Your task to perform on an android device: Find coffee shops on Maps Image 0: 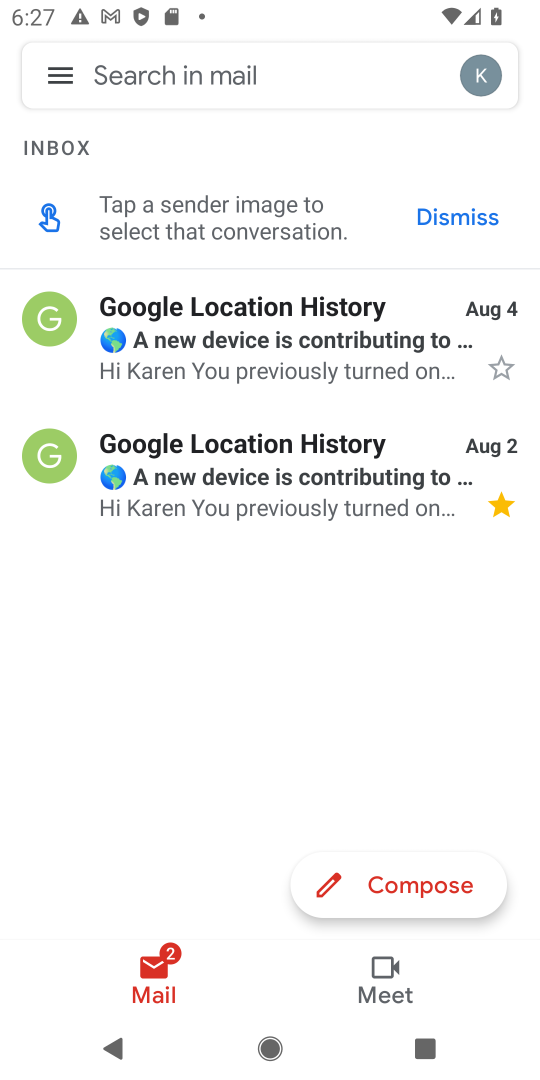
Step 0: press back button
Your task to perform on an android device: Find coffee shops on Maps Image 1: 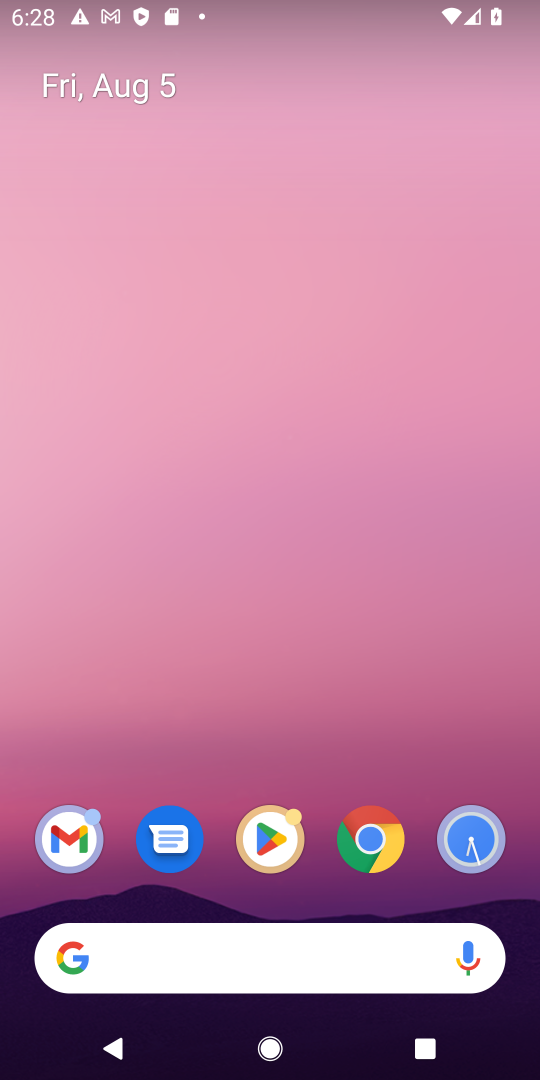
Step 1: drag from (378, 762) to (329, 100)
Your task to perform on an android device: Find coffee shops on Maps Image 2: 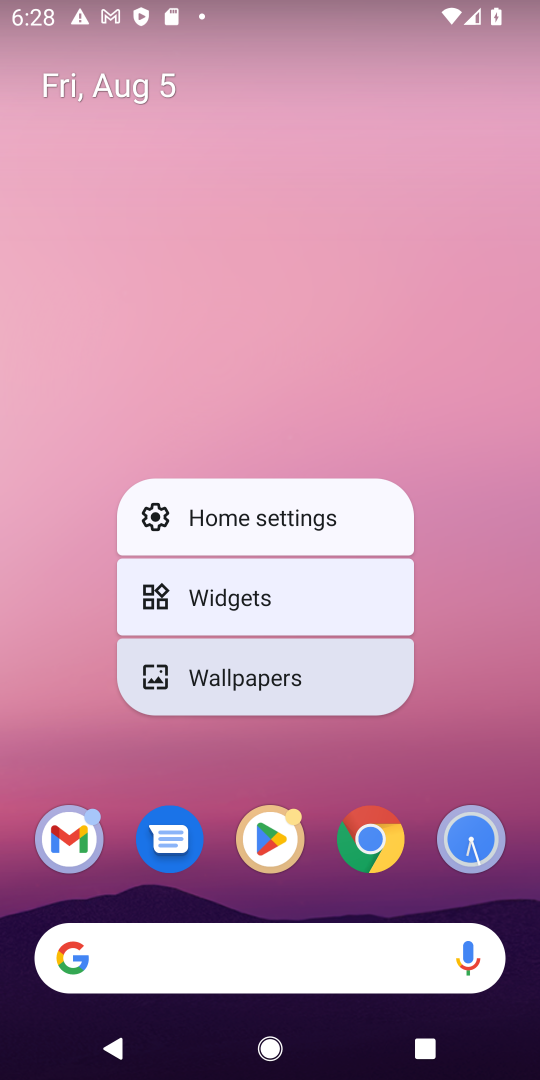
Step 2: drag from (500, 777) to (405, 140)
Your task to perform on an android device: Find coffee shops on Maps Image 3: 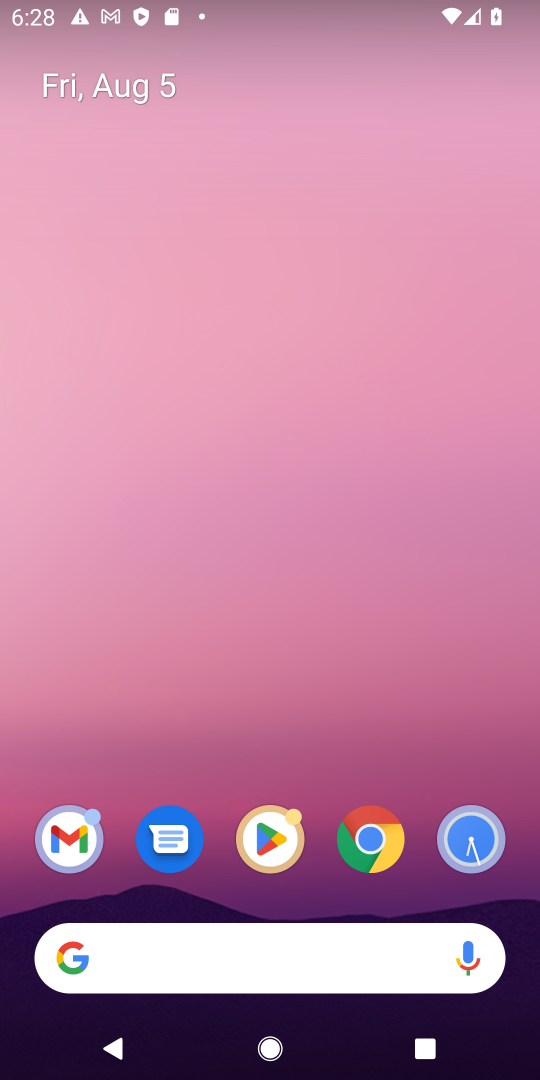
Step 3: drag from (322, 789) to (274, 297)
Your task to perform on an android device: Find coffee shops on Maps Image 4: 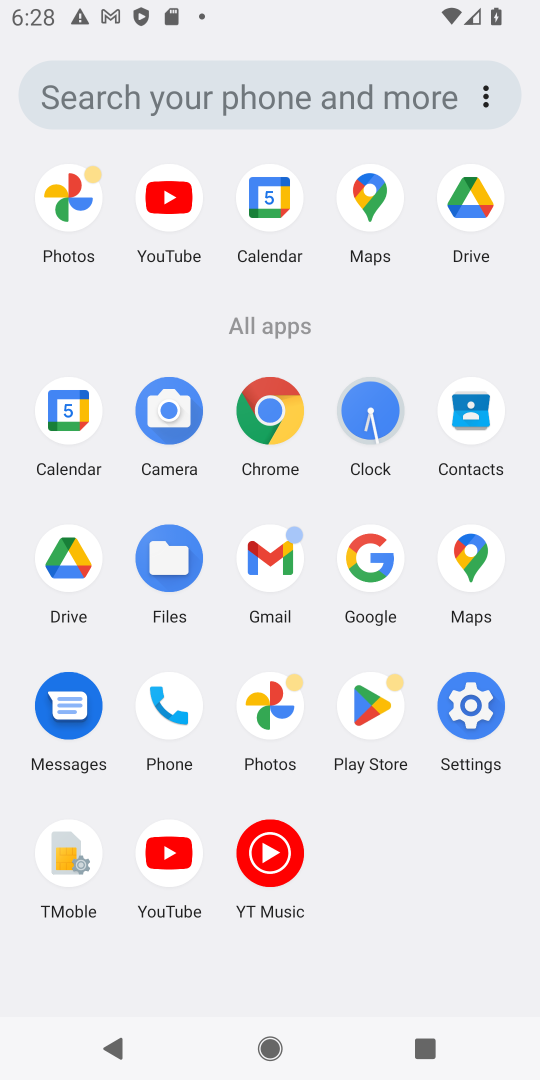
Step 4: click (369, 198)
Your task to perform on an android device: Find coffee shops on Maps Image 5: 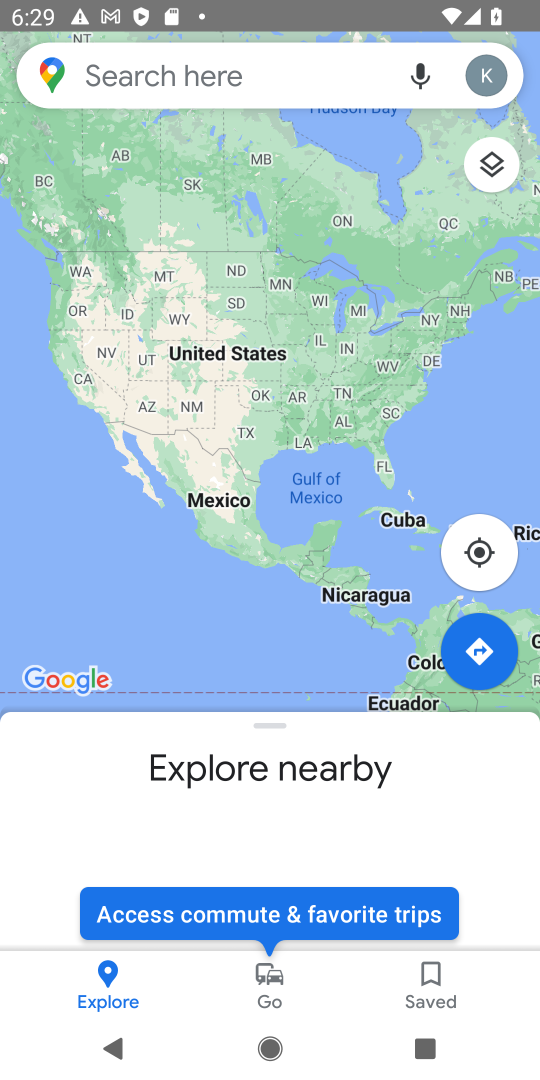
Step 5: click (234, 96)
Your task to perform on an android device: Find coffee shops on Maps Image 6: 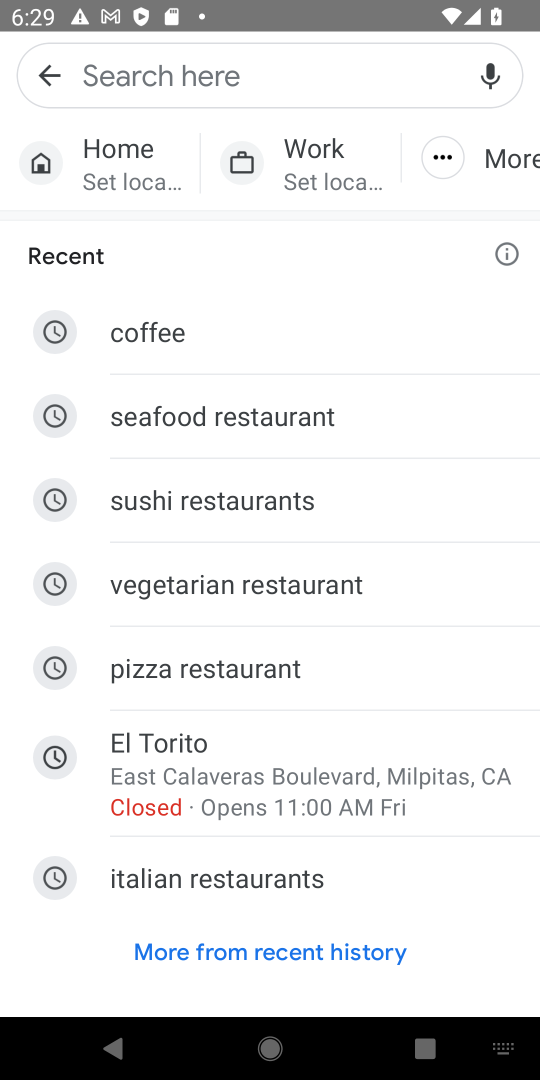
Step 6: click (177, 357)
Your task to perform on an android device: Find coffee shops on Maps Image 7: 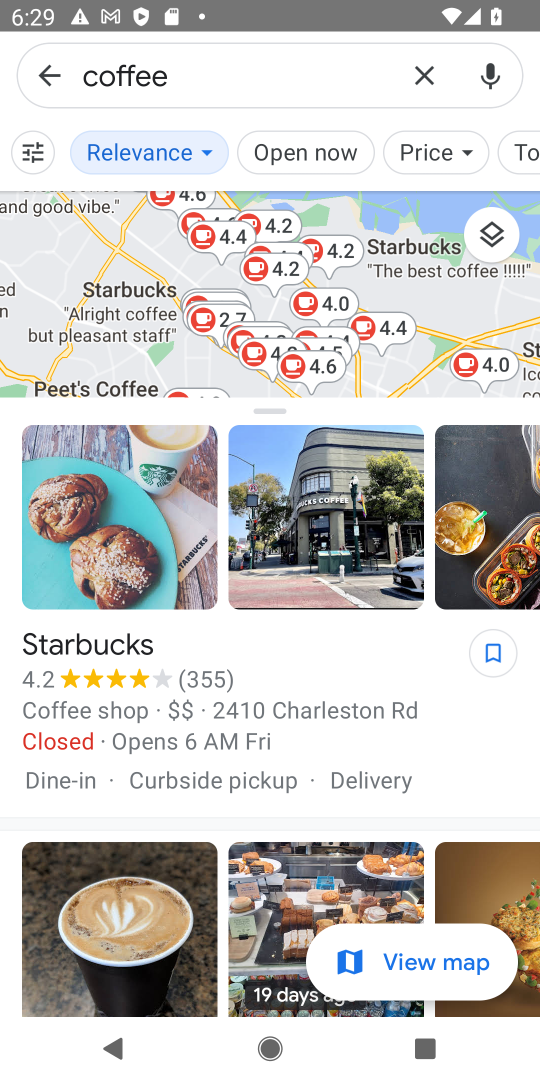
Step 7: task complete